Your task to perform on an android device: delete the emails in spam in the gmail app Image 0: 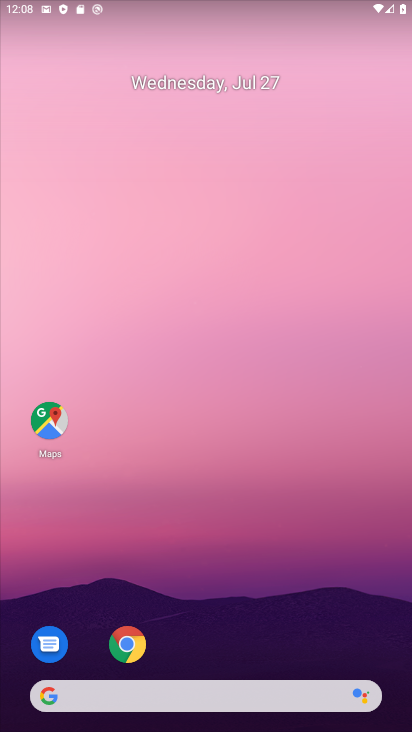
Step 0: drag from (299, 324) to (300, 222)
Your task to perform on an android device: delete the emails in spam in the gmail app Image 1: 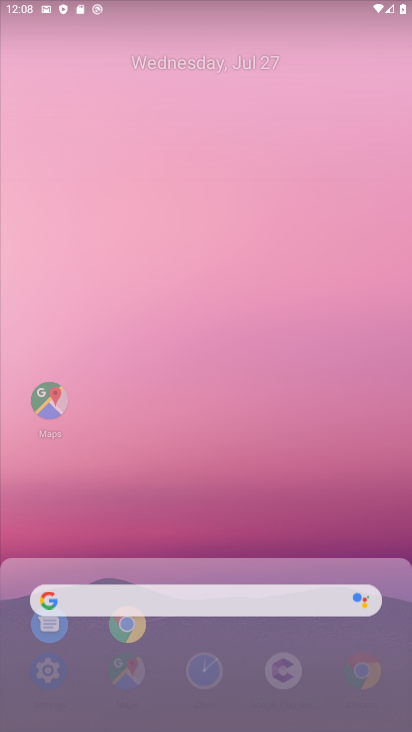
Step 1: drag from (248, 205) to (224, 78)
Your task to perform on an android device: delete the emails in spam in the gmail app Image 2: 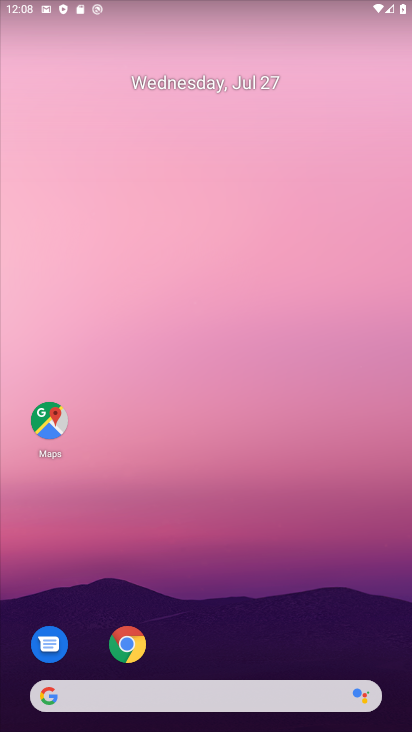
Step 2: drag from (264, 433) to (264, 120)
Your task to perform on an android device: delete the emails in spam in the gmail app Image 3: 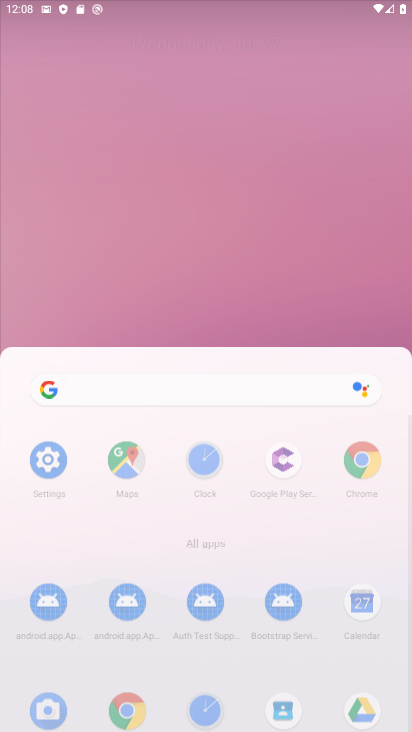
Step 3: drag from (228, 484) to (228, 186)
Your task to perform on an android device: delete the emails in spam in the gmail app Image 4: 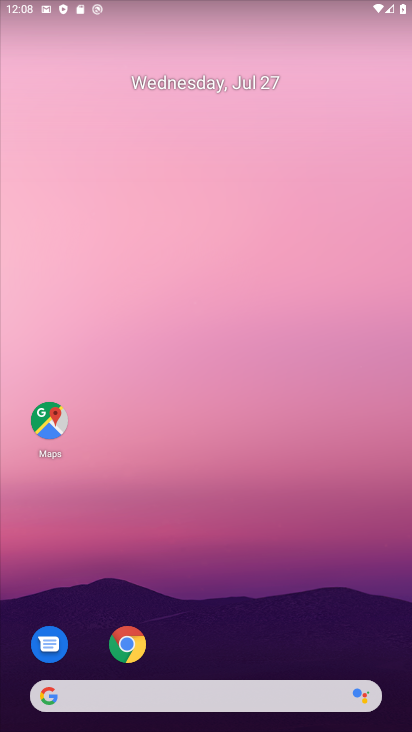
Step 4: drag from (196, 463) to (183, 156)
Your task to perform on an android device: delete the emails in spam in the gmail app Image 5: 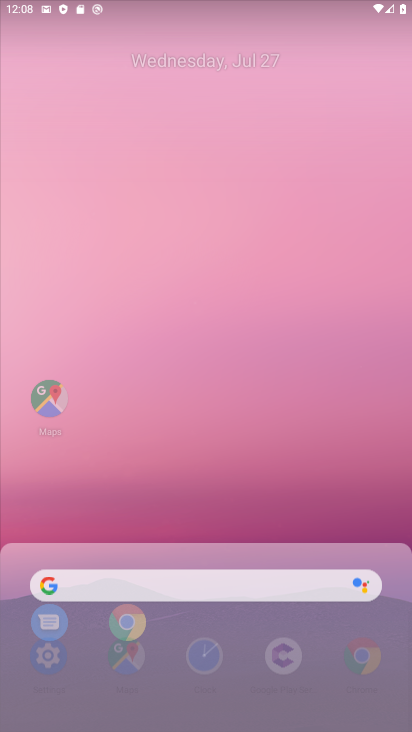
Step 5: drag from (189, 583) to (210, 189)
Your task to perform on an android device: delete the emails in spam in the gmail app Image 6: 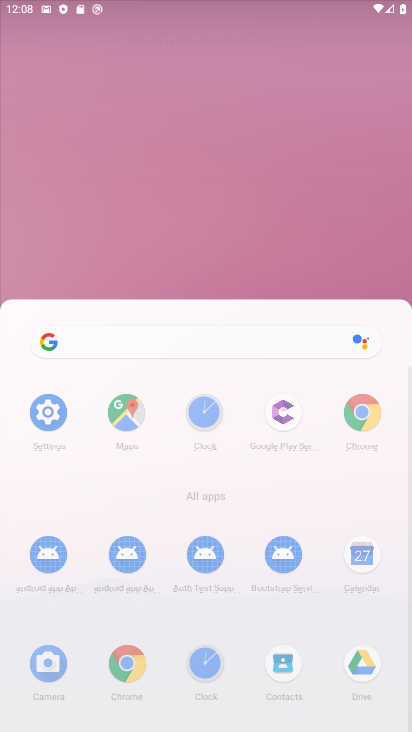
Step 6: drag from (169, 593) to (169, 146)
Your task to perform on an android device: delete the emails in spam in the gmail app Image 7: 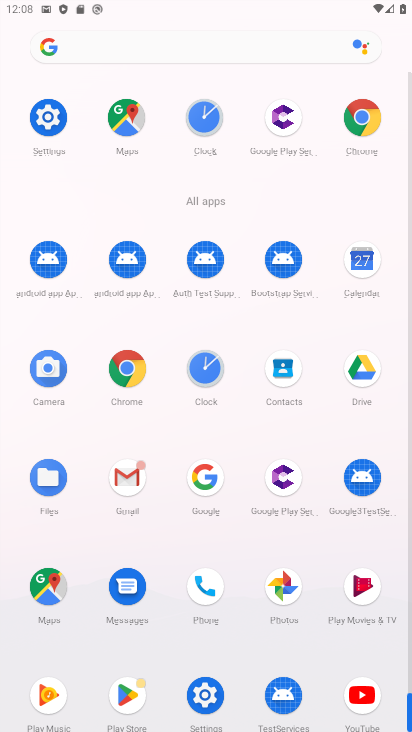
Step 7: drag from (150, 600) to (201, 147)
Your task to perform on an android device: delete the emails in spam in the gmail app Image 8: 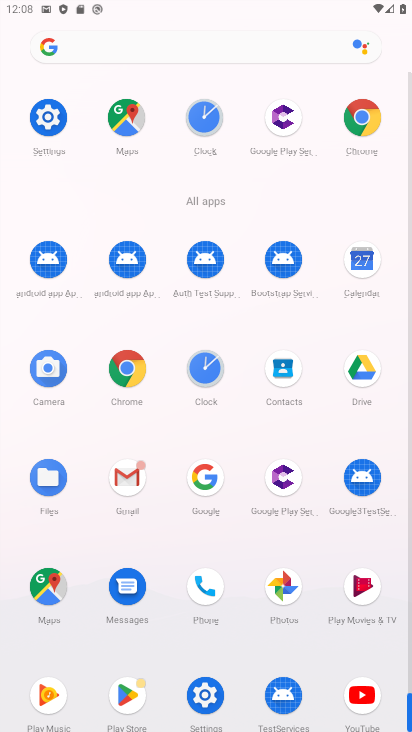
Step 8: click (119, 472)
Your task to perform on an android device: delete the emails in spam in the gmail app Image 9: 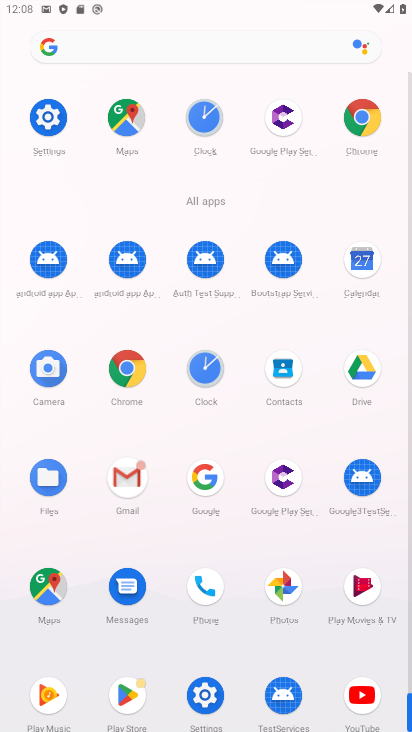
Step 9: click (119, 472)
Your task to perform on an android device: delete the emails in spam in the gmail app Image 10: 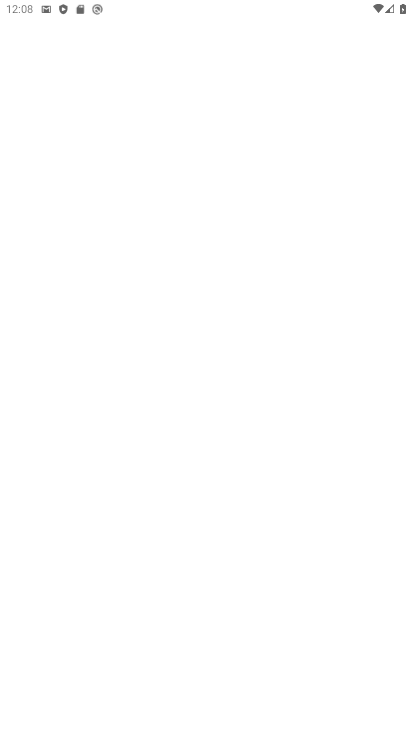
Step 10: click (118, 471)
Your task to perform on an android device: delete the emails in spam in the gmail app Image 11: 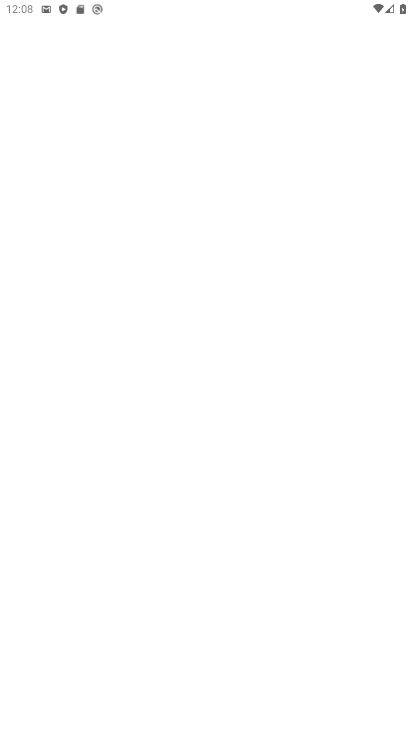
Step 11: click (119, 469)
Your task to perform on an android device: delete the emails in spam in the gmail app Image 12: 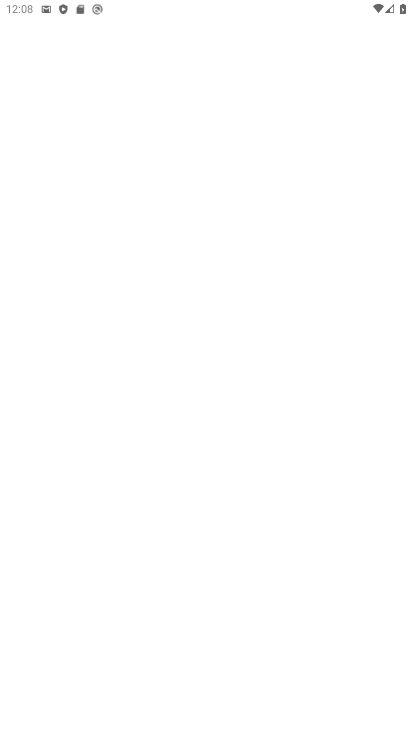
Step 12: click (119, 469)
Your task to perform on an android device: delete the emails in spam in the gmail app Image 13: 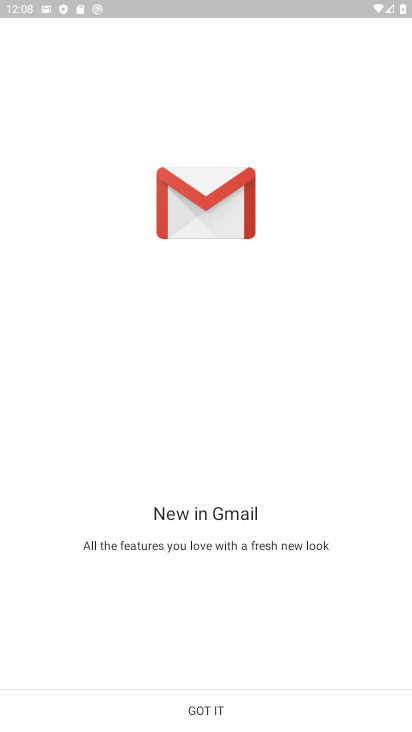
Step 13: click (206, 703)
Your task to perform on an android device: delete the emails in spam in the gmail app Image 14: 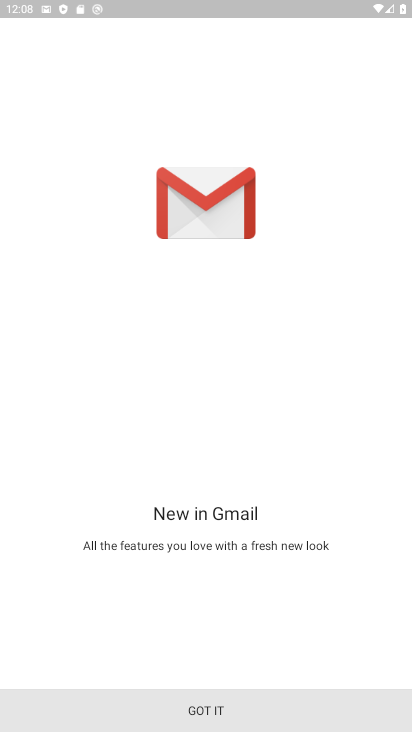
Step 14: click (206, 703)
Your task to perform on an android device: delete the emails in spam in the gmail app Image 15: 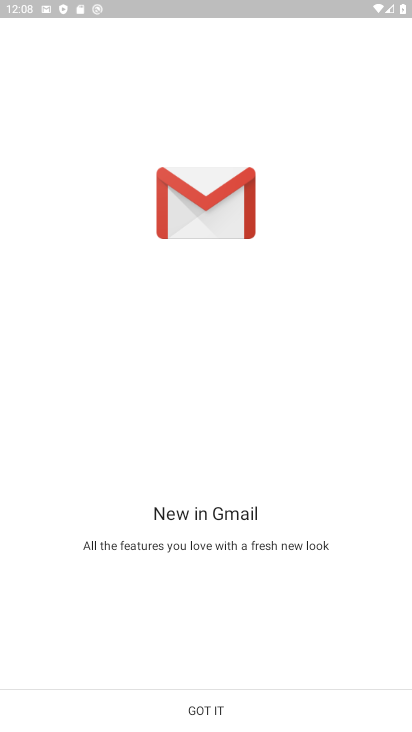
Step 15: click (212, 709)
Your task to perform on an android device: delete the emails in spam in the gmail app Image 16: 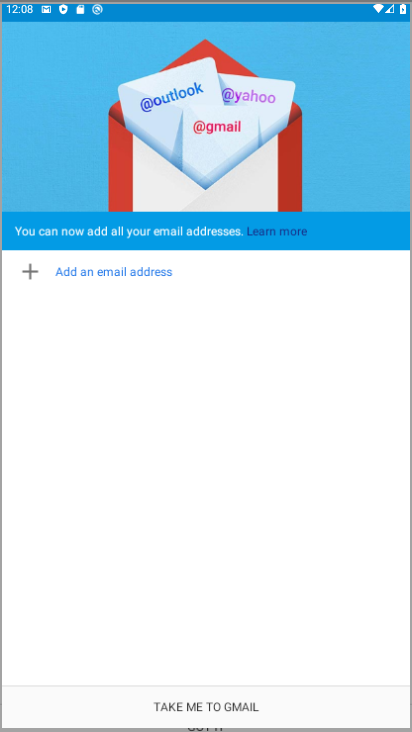
Step 16: click (214, 709)
Your task to perform on an android device: delete the emails in spam in the gmail app Image 17: 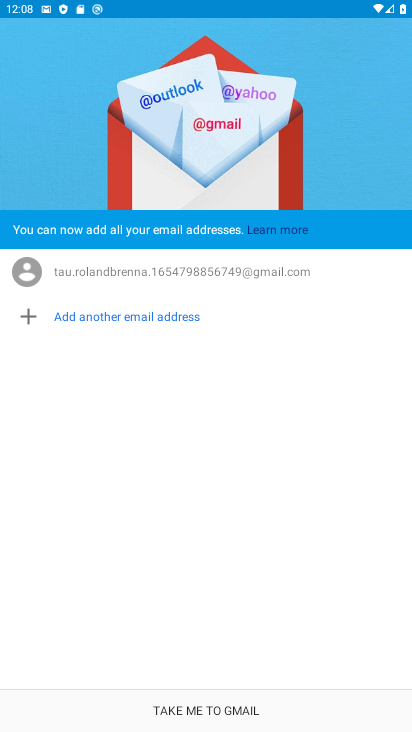
Step 17: click (238, 714)
Your task to perform on an android device: delete the emails in spam in the gmail app Image 18: 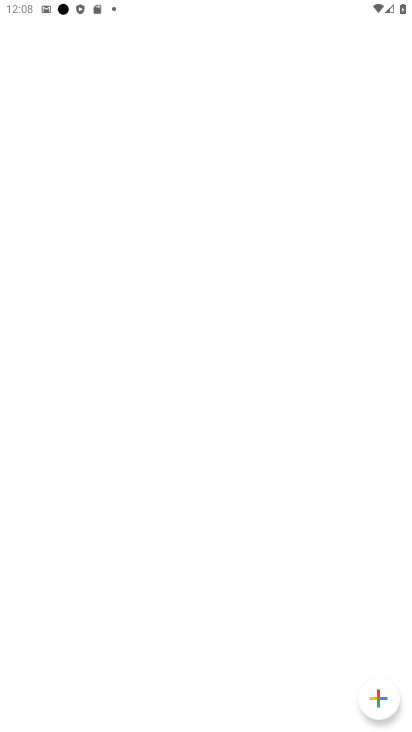
Step 18: click (241, 720)
Your task to perform on an android device: delete the emails in spam in the gmail app Image 19: 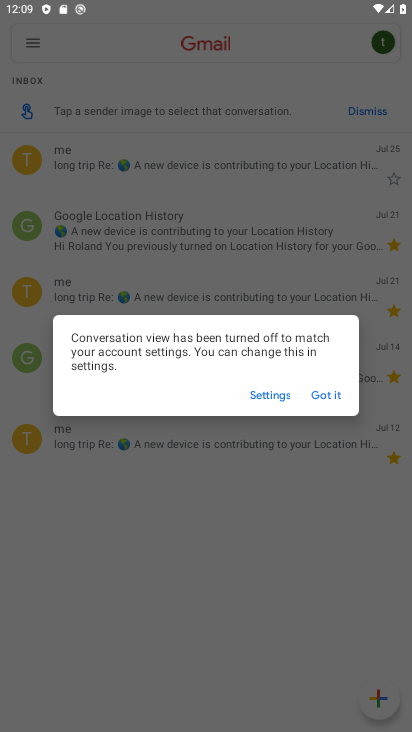
Step 19: click (312, 395)
Your task to perform on an android device: delete the emails in spam in the gmail app Image 20: 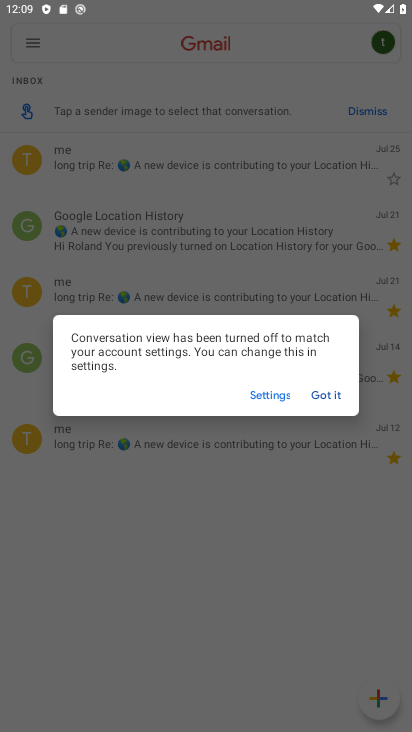
Step 20: click (312, 395)
Your task to perform on an android device: delete the emails in spam in the gmail app Image 21: 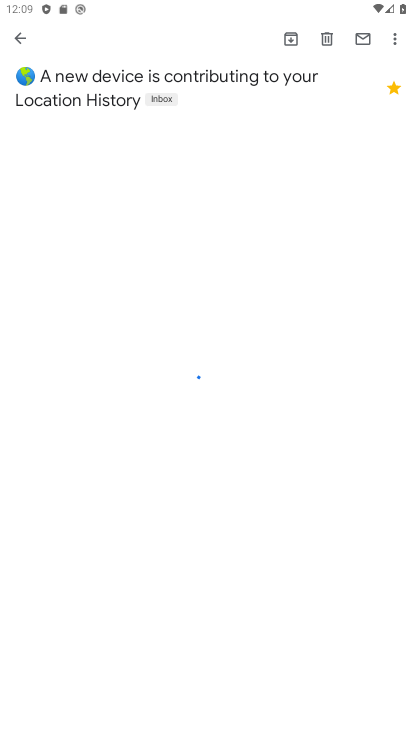
Step 21: click (17, 32)
Your task to perform on an android device: delete the emails in spam in the gmail app Image 22: 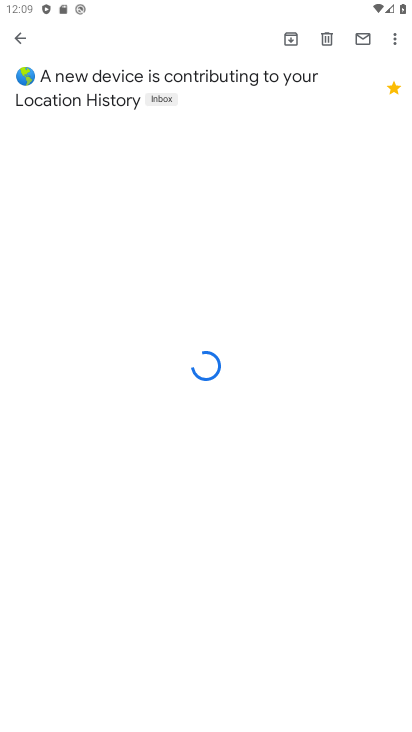
Step 22: click (18, 37)
Your task to perform on an android device: delete the emails in spam in the gmail app Image 23: 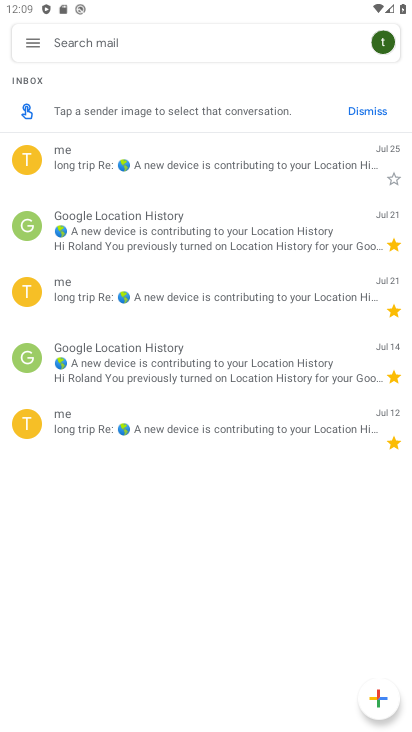
Step 23: click (35, 41)
Your task to perform on an android device: delete the emails in spam in the gmail app Image 24: 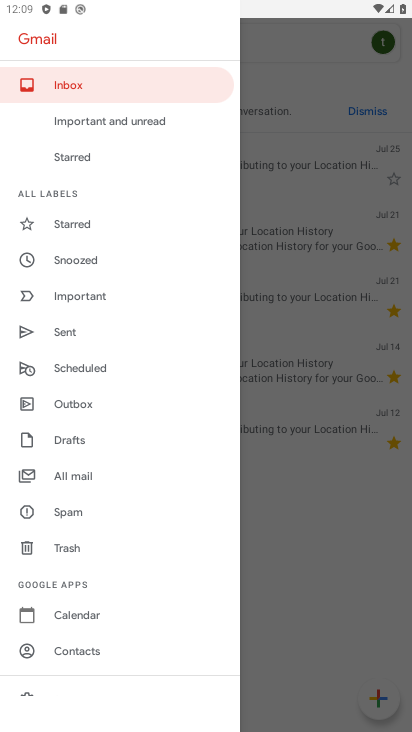
Step 24: click (71, 475)
Your task to perform on an android device: delete the emails in spam in the gmail app Image 25: 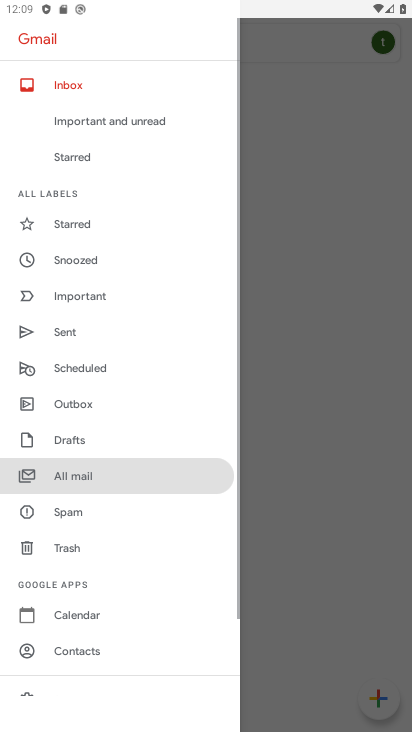
Step 25: click (71, 476)
Your task to perform on an android device: delete the emails in spam in the gmail app Image 26: 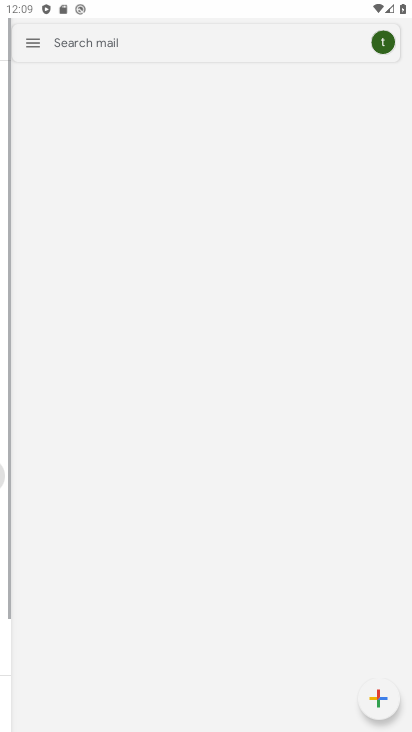
Step 26: click (71, 476)
Your task to perform on an android device: delete the emails in spam in the gmail app Image 27: 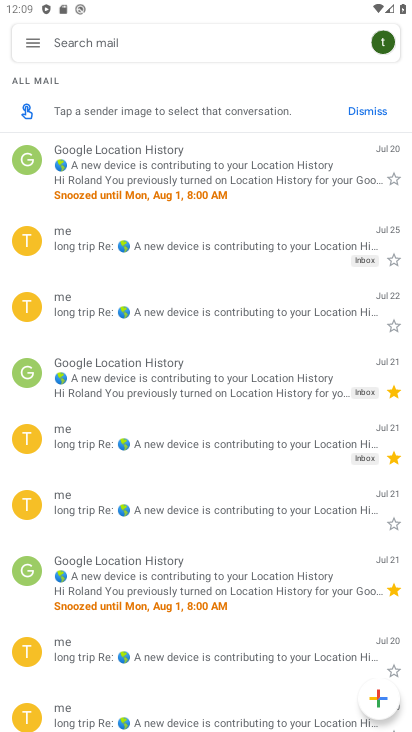
Step 27: click (182, 179)
Your task to perform on an android device: delete the emails in spam in the gmail app Image 28: 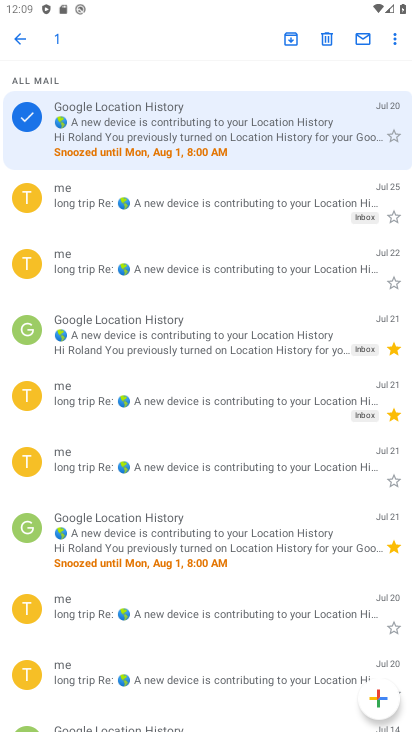
Step 28: click (14, 31)
Your task to perform on an android device: delete the emails in spam in the gmail app Image 29: 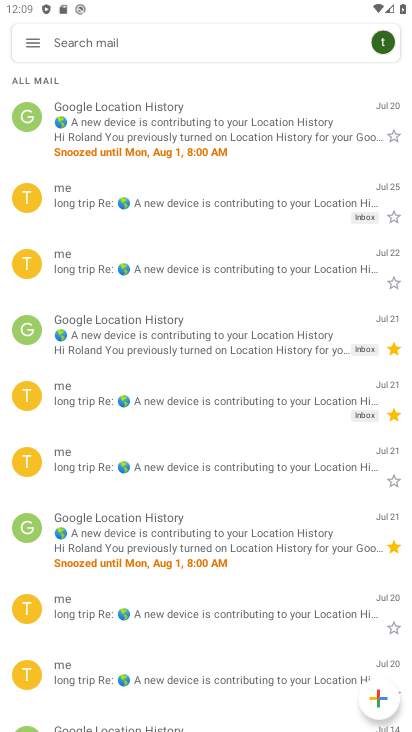
Step 29: click (31, 44)
Your task to perform on an android device: delete the emails in spam in the gmail app Image 30: 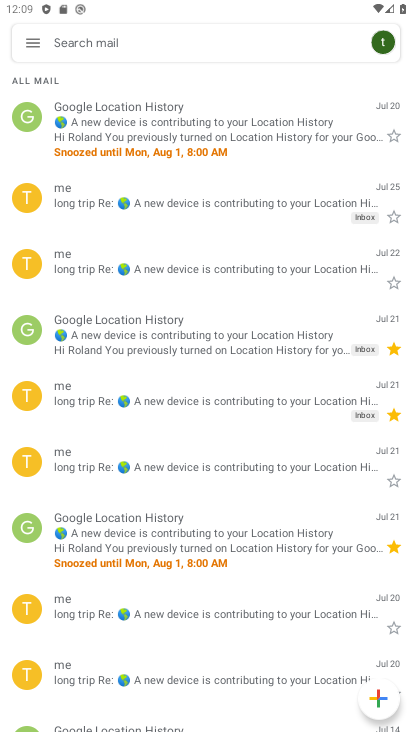
Step 30: click (30, 42)
Your task to perform on an android device: delete the emails in spam in the gmail app Image 31: 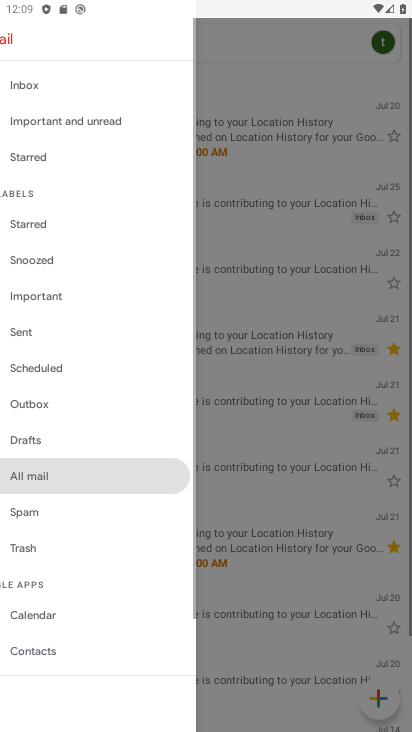
Step 31: click (34, 41)
Your task to perform on an android device: delete the emails in spam in the gmail app Image 32: 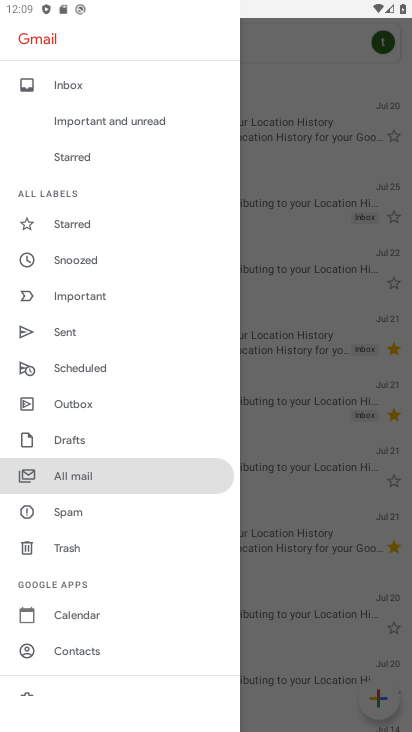
Step 32: click (68, 516)
Your task to perform on an android device: delete the emails in spam in the gmail app Image 33: 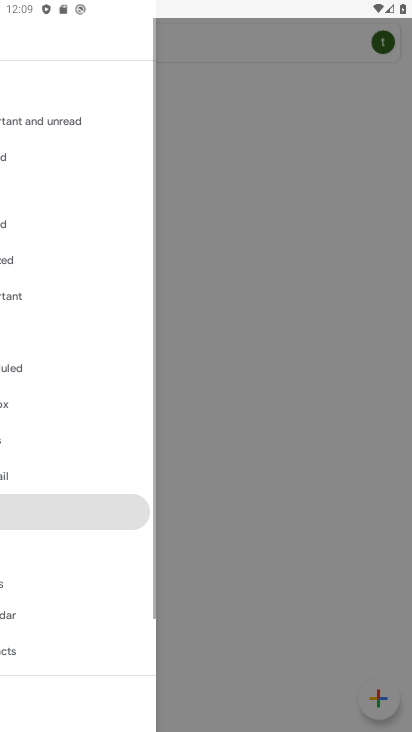
Step 33: click (67, 515)
Your task to perform on an android device: delete the emails in spam in the gmail app Image 34: 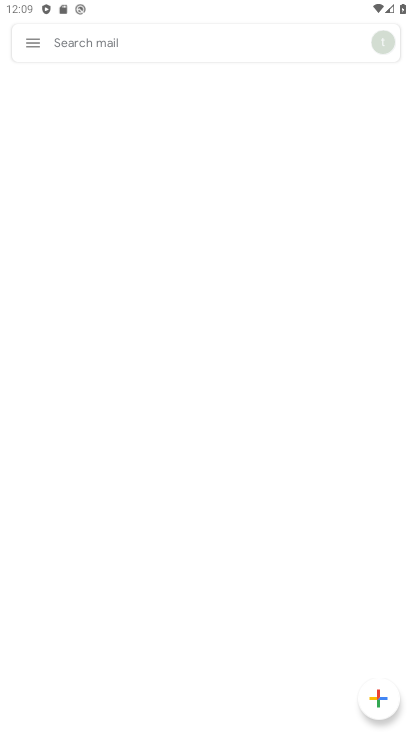
Step 34: click (66, 516)
Your task to perform on an android device: delete the emails in spam in the gmail app Image 35: 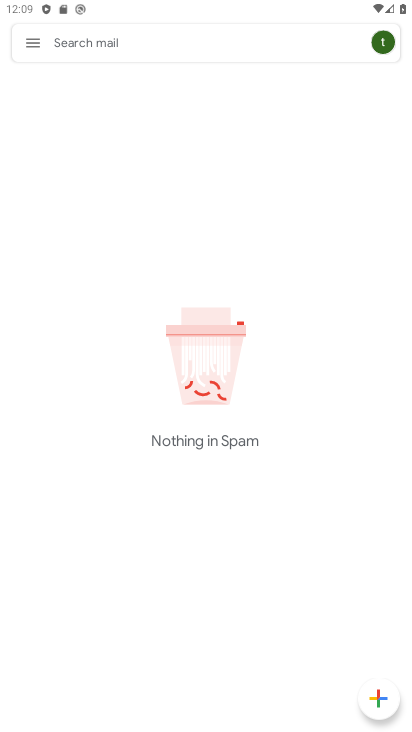
Step 35: task complete